Your task to perform on an android device: toggle show notifications on the lock screen Image 0: 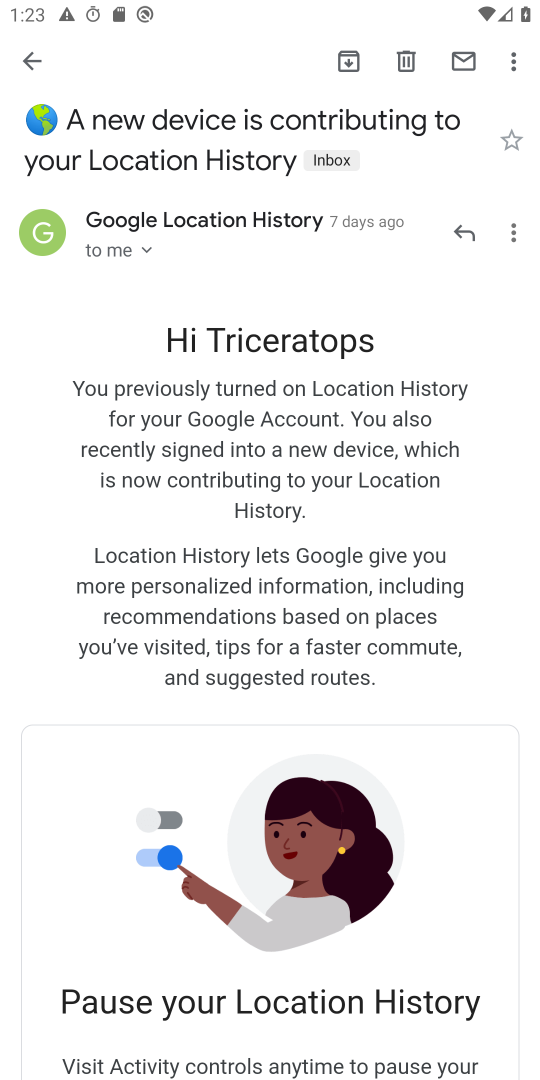
Step 0: press home button
Your task to perform on an android device: toggle show notifications on the lock screen Image 1: 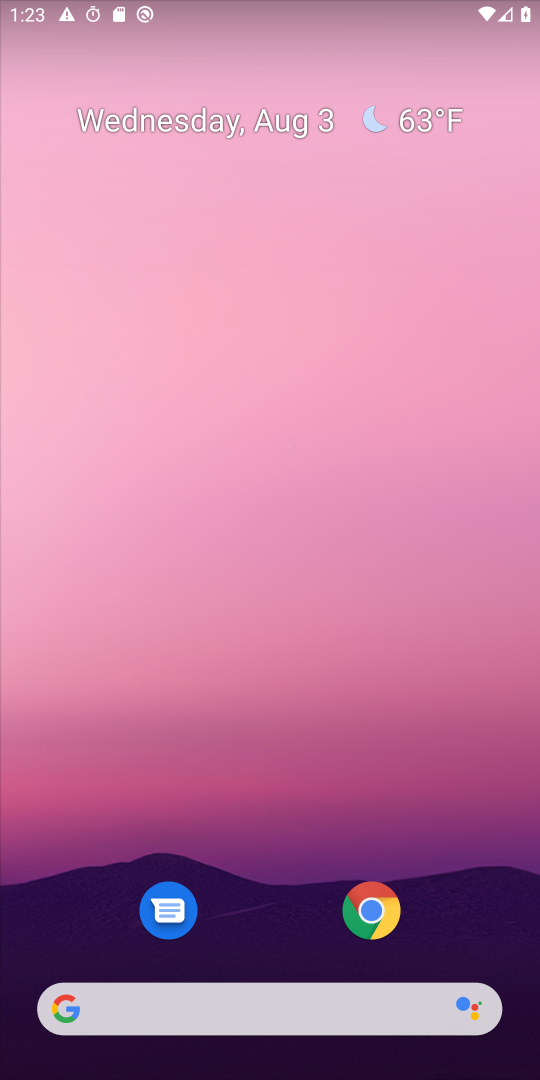
Step 1: drag from (412, 862) to (404, 0)
Your task to perform on an android device: toggle show notifications on the lock screen Image 2: 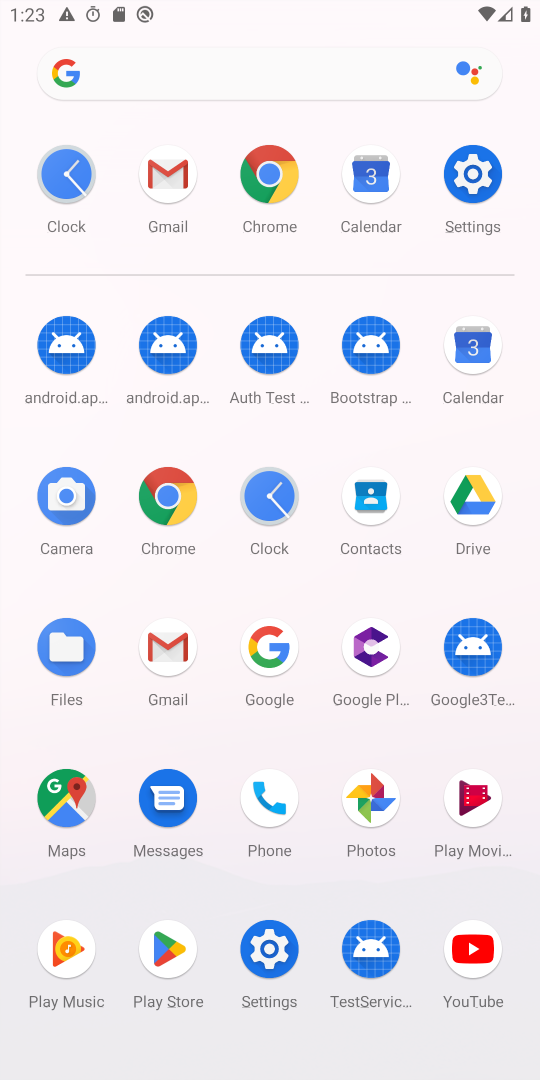
Step 2: click (460, 175)
Your task to perform on an android device: toggle show notifications on the lock screen Image 3: 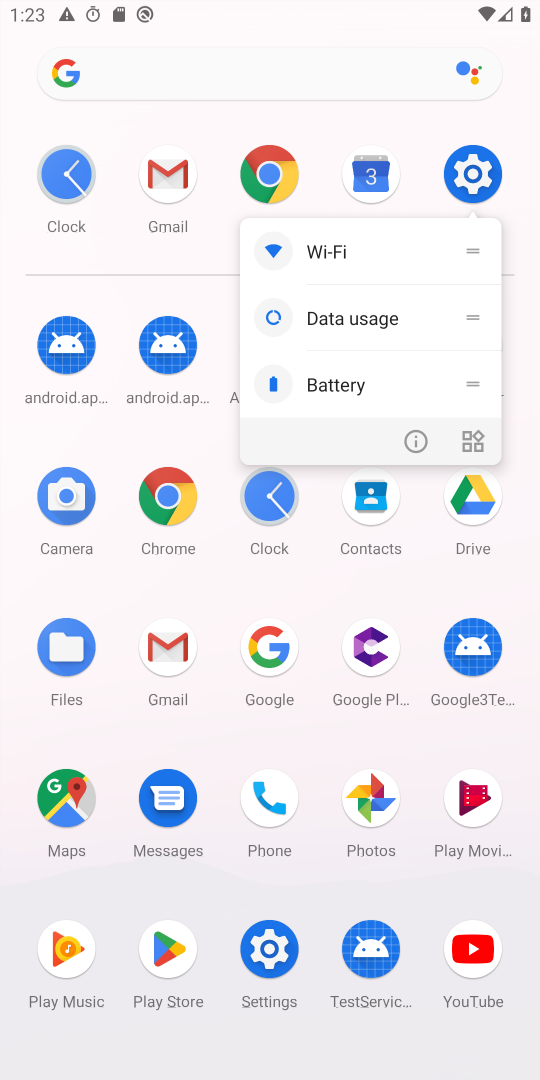
Step 3: click (462, 174)
Your task to perform on an android device: toggle show notifications on the lock screen Image 4: 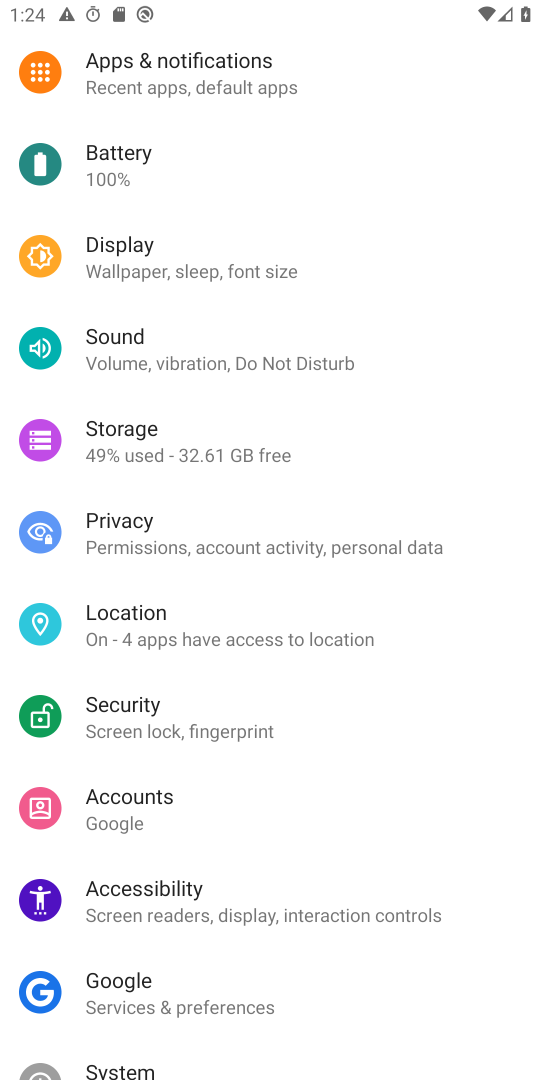
Step 4: click (179, 71)
Your task to perform on an android device: toggle show notifications on the lock screen Image 5: 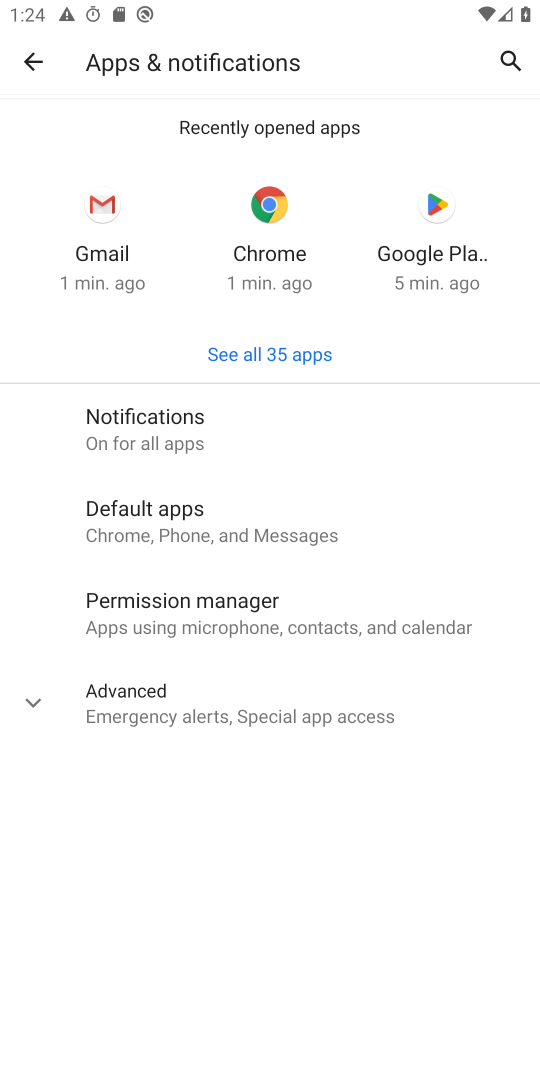
Step 5: click (184, 424)
Your task to perform on an android device: toggle show notifications on the lock screen Image 6: 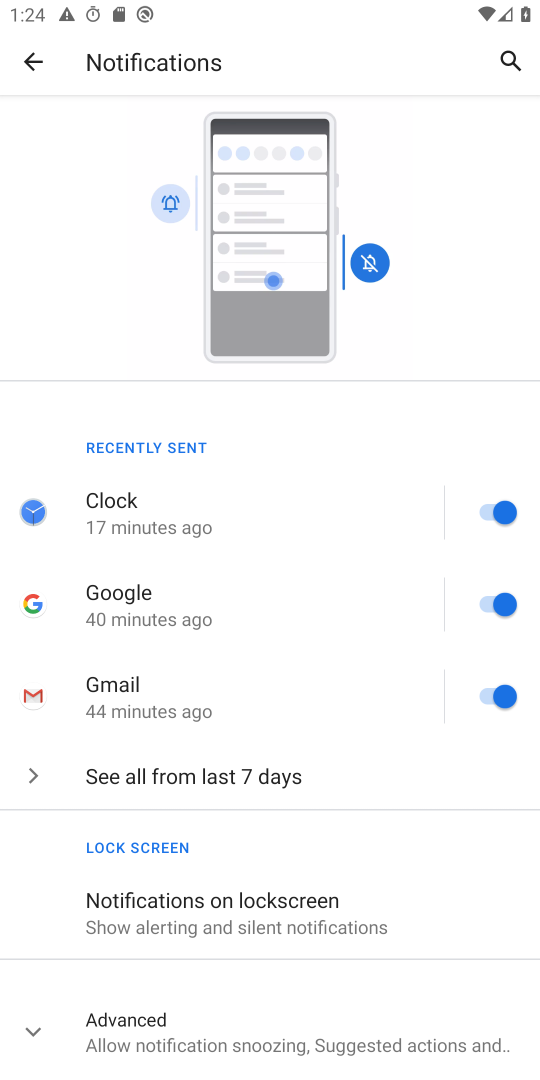
Step 6: drag from (253, 922) to (259, 319)
Your task to perform on an android device: toggle show notifications on the lock screen Image 7: 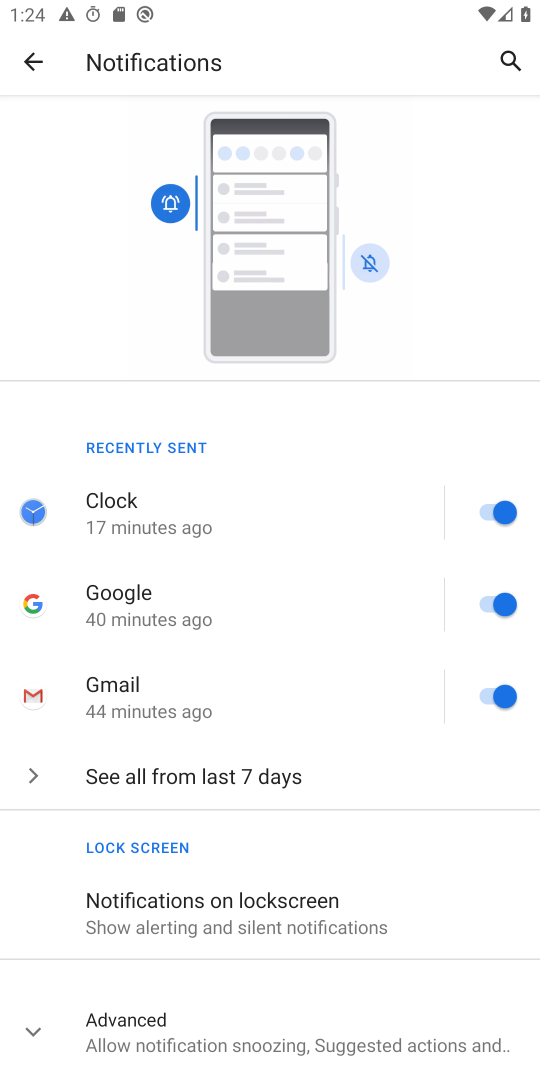
Step 7: click (203, 906)
Your task to perform on an android device: toggle show notifications on the lock screen Image 8: 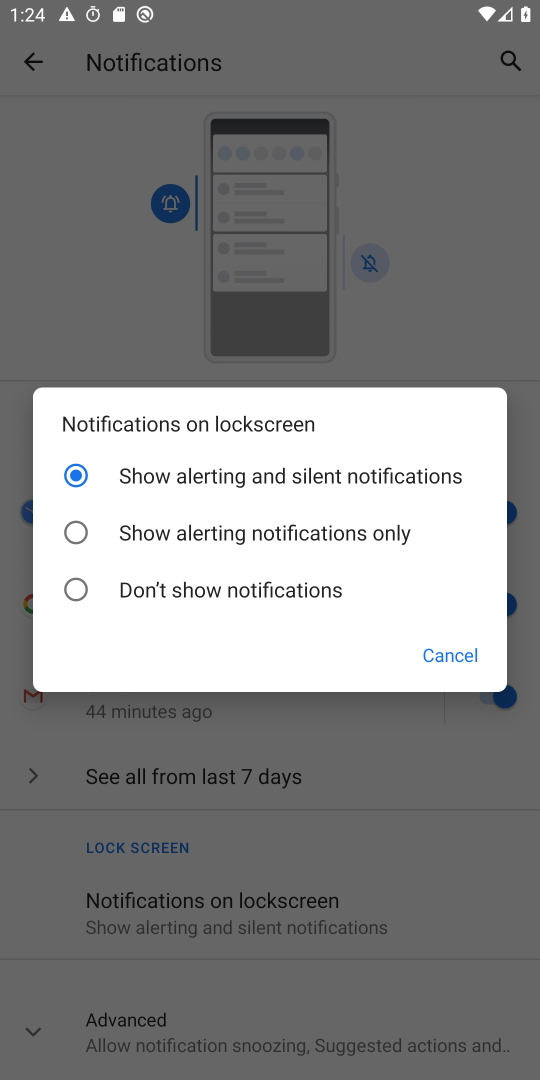
Step 8: click (77, 592)
Your task to perform on an android device: toggle show notifications on the lock screen Image 9: 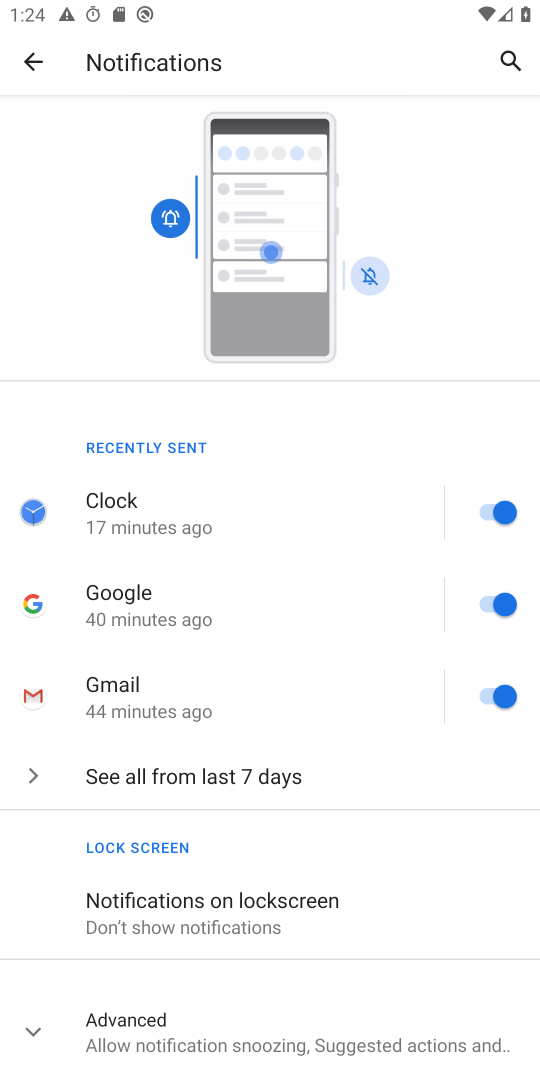
Step 9: task complete